Your task to perform on an android device: Search for pizza restaurants on Maps Image 0: 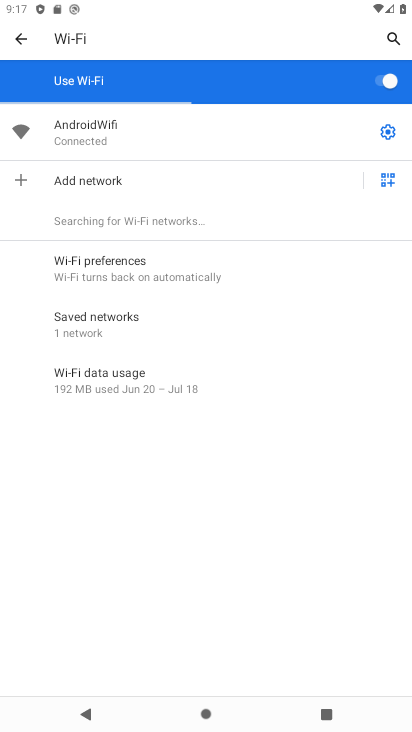
Step 0: press home button
Your task to perform on an android device: Search for pizza restaurants on Maps Image 1: 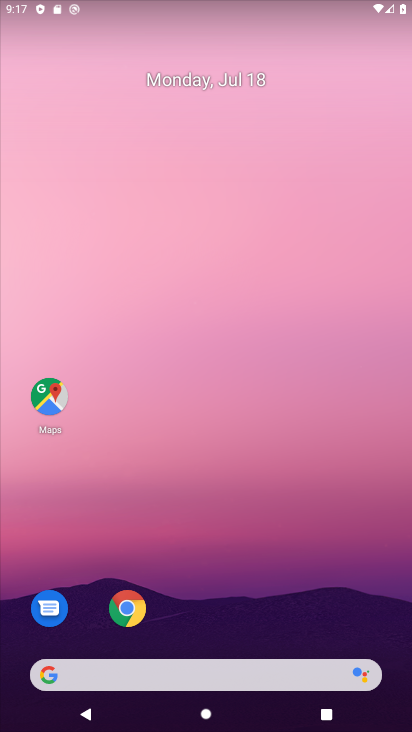
Step 1: click (46, 401)
Your task to perform on an android device: Search for pizza restaurants on Maps Image 2: 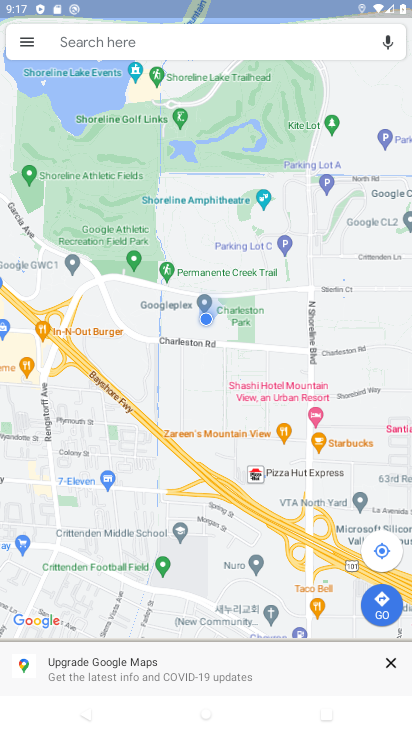
Step 2: click (130, 30)
Your task to perform on an android device: Search for pizza restaurants on Maps Image 3: 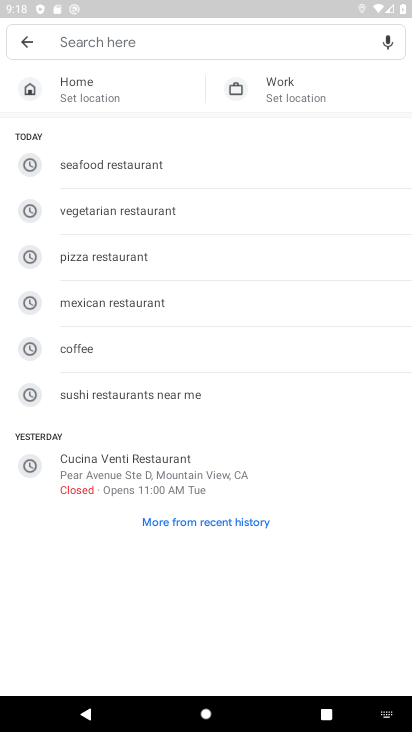
Step 3: type "Pizza restaurants"
Your task to perform on an android device: Search for pizza restaurants on Maps Image 4: 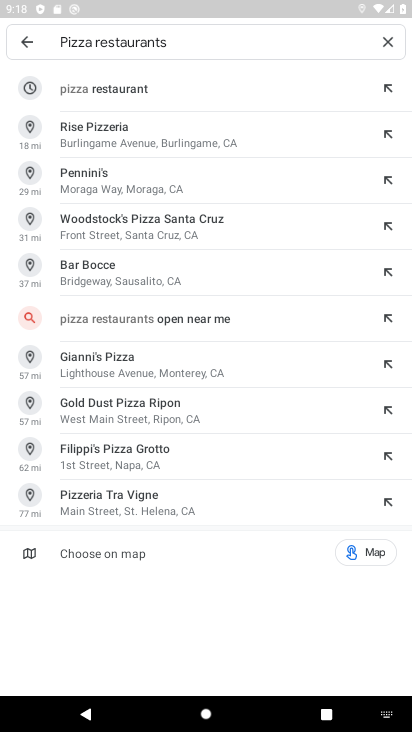
Step 4: click (134, 81)
Your task to perform on an android device: Search for pizza restaurants on Maps Image 5: 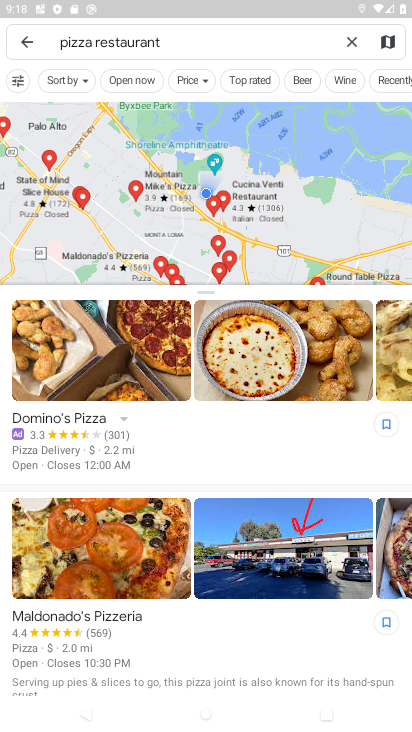
Step 5: task complete